Your task to perform on an android device: open the mobile data screen to see how much data has been used Image 0: 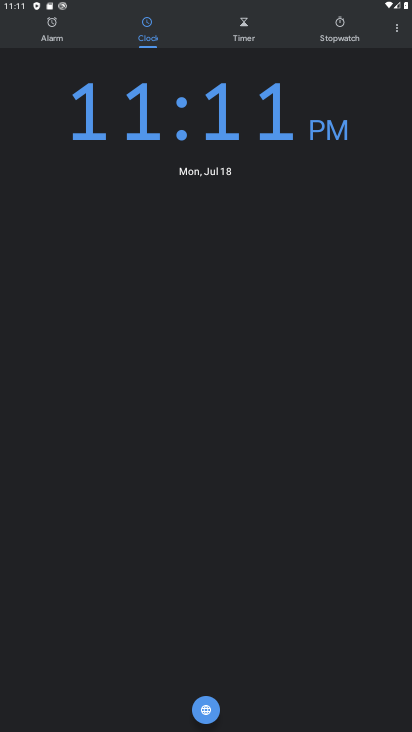
Step 0: press home button
Your task to perform on an android device: open the mobile data screen to see how much data has been used Image 1: 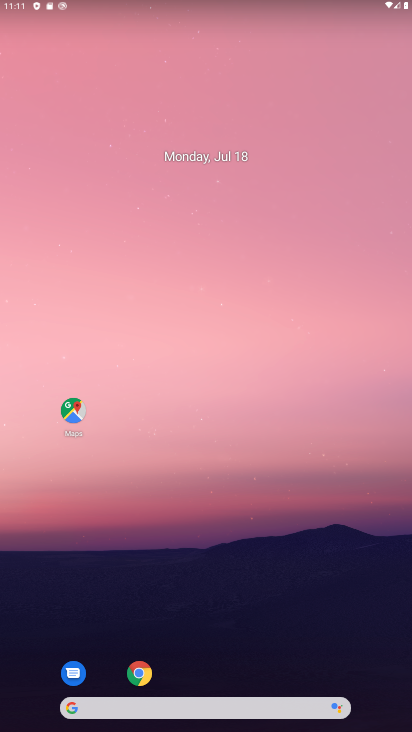
Step 1: drag from (205, 676) to (263, 34)
Your task to perform on an android device: open the mobile data screen to see how much data has been used Image 2: 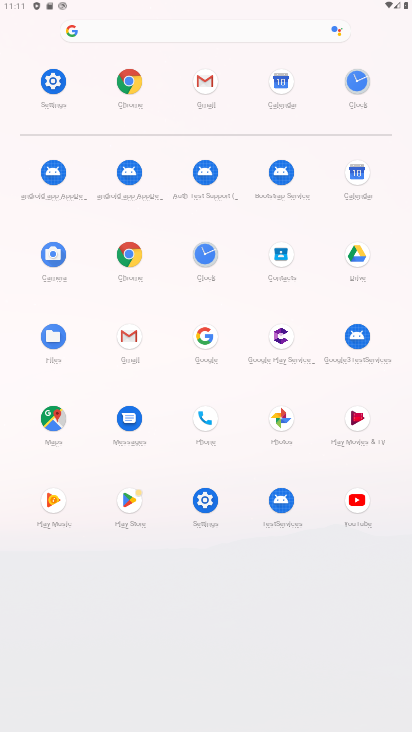
Step 2: click (50, 80)
Your task to perform on an android device: open the mobile data screen to see how much data has been used Image 3: 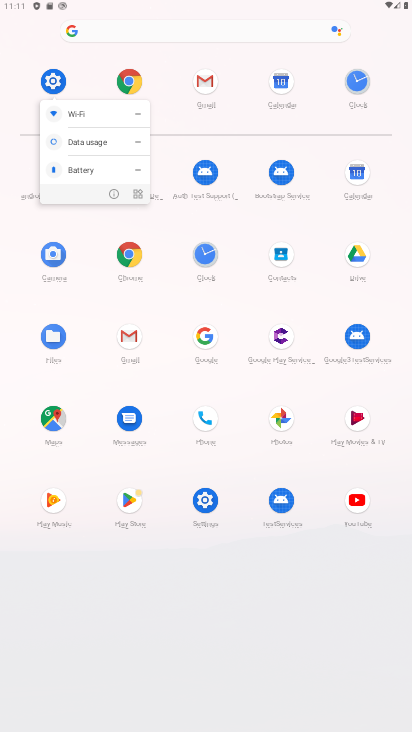
Step 3: click (50, 80)
Your task to perform on an android device: open the mobile data screen to see how much data has been used Image 4: 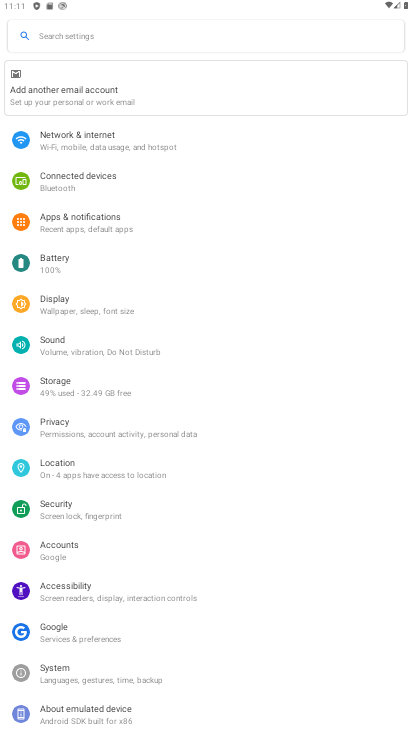
Step 4: click (119, 139)
Your task to perform on an android device: open the mobile data screen to see how much data has been used Image 5: 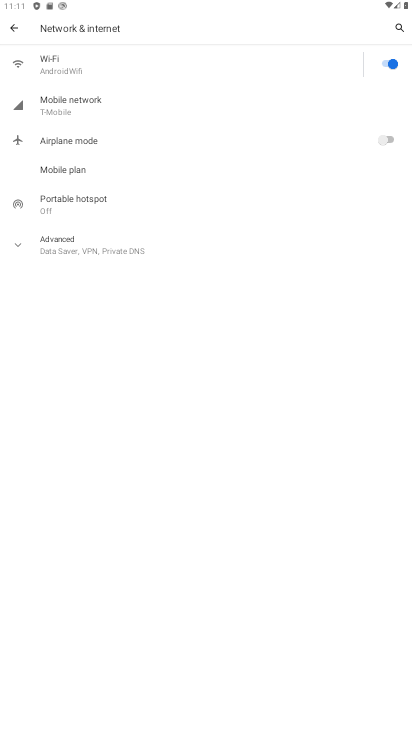
Step 5: click (107, 105)
Your task to perform on an android device: open the mobile data screen to see how much data has been used Image 6: 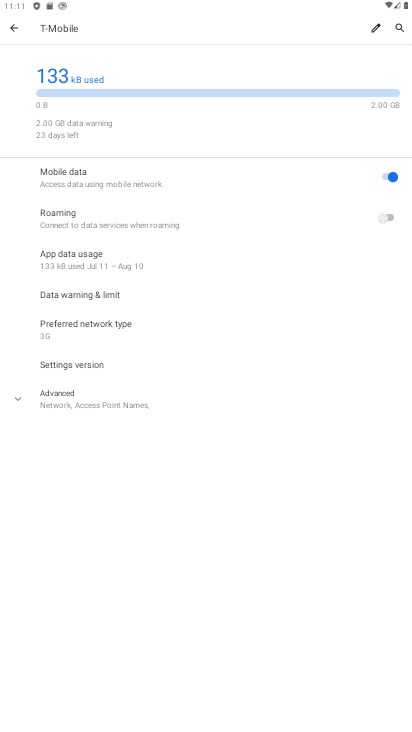
Step 6: click (114, 252)
Your task to perform on an android device: open the mobile data screen to see how much data has been used Image 7: 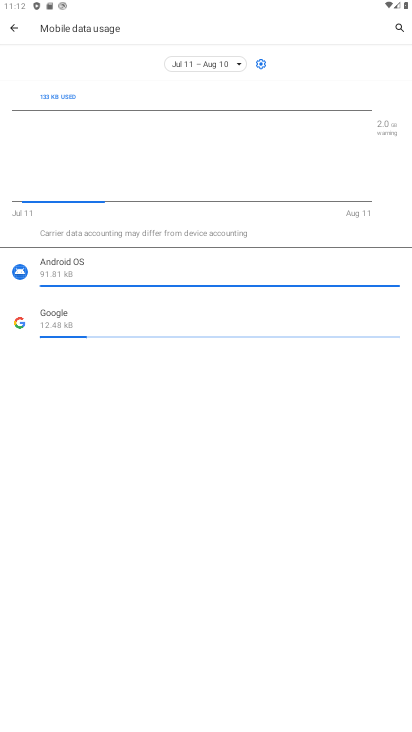
Step 7: task complete